Your task to perform on an android device: change the clock style Image 0: 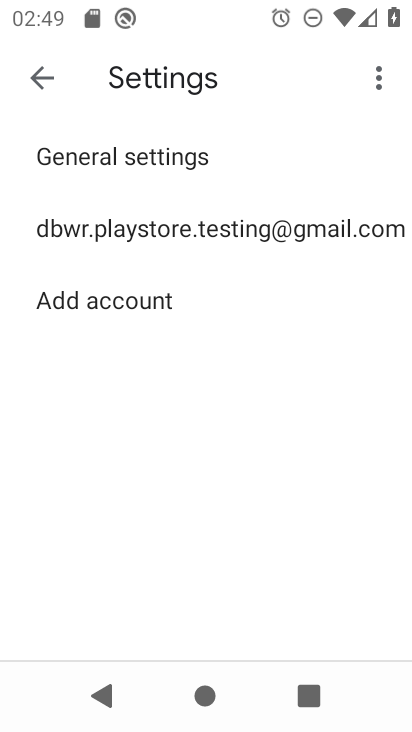
Step 0: press home button
Your task to perform on an android device: change the clock style Image 1: 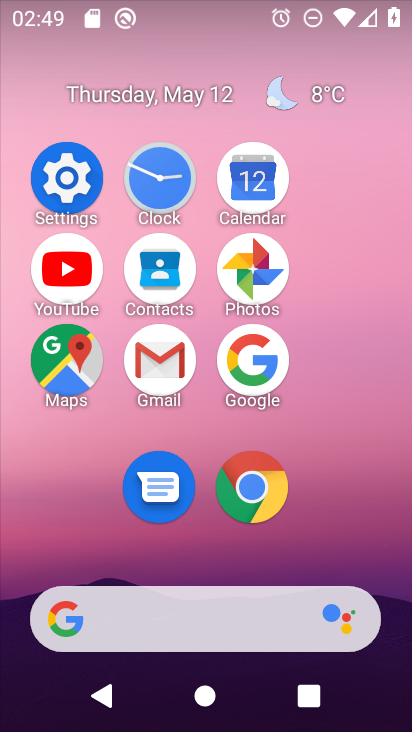
Step 1: click (179, 199)
Your task to perform on an android device: change the clock style Image 2: 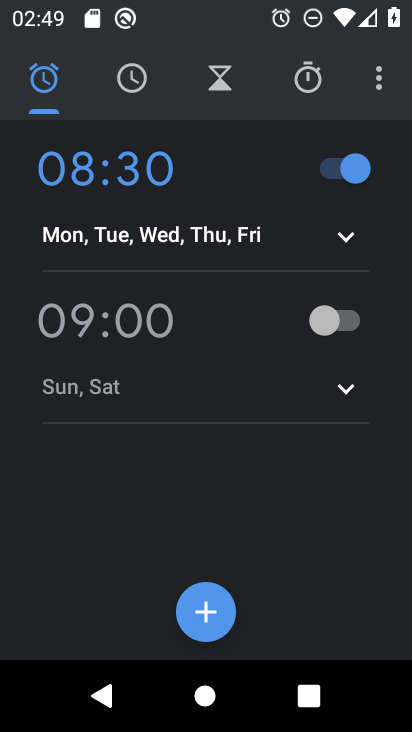
Step 2: click (381, 76)
Your task to perform on an android device: change the clock style Image 3: 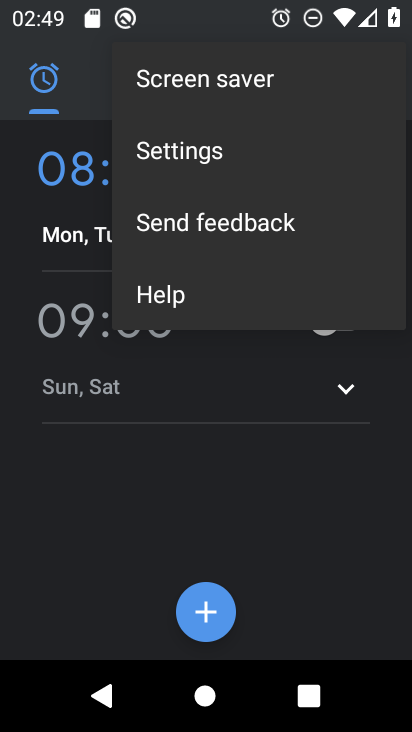
Step 3: click (191, 171)
Your task to perform on an android device: change the clock style Image 4: 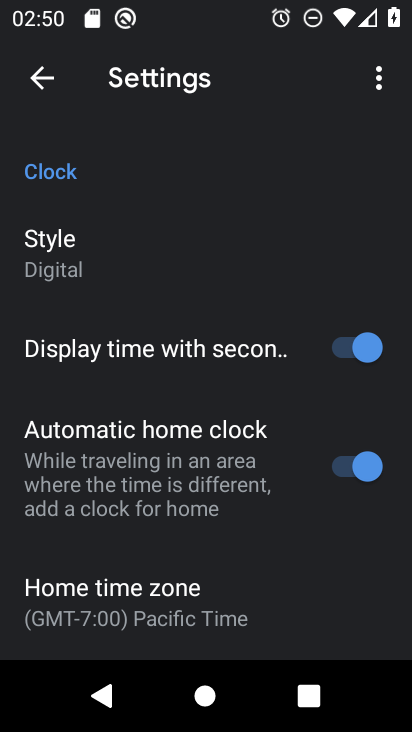
Step 4: click (60, 255)
Your task to perform on an android device: change the clock style Image 5: 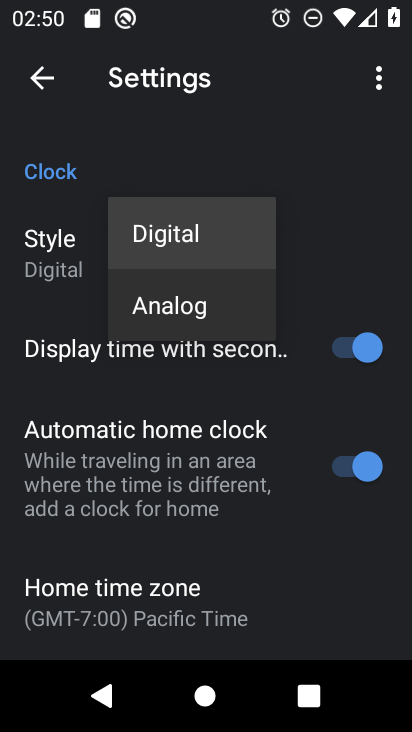
Step 5: click (195, 298)
Your task to perform on an android device: change the clock style Image 6: 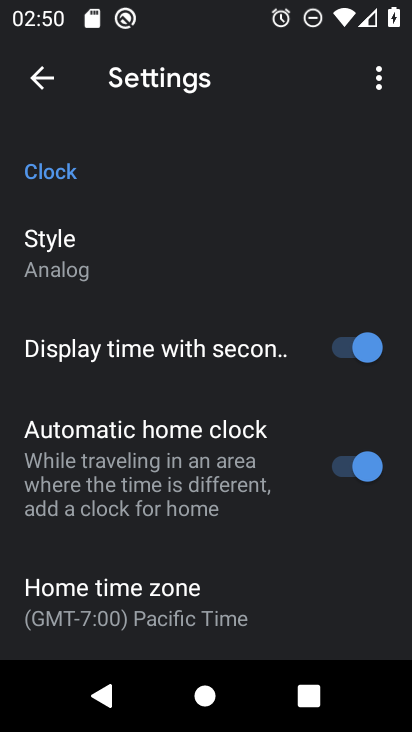
Step 6: task complete